Your task to perform on an android device: delete a single message in the gmail app Image 0: 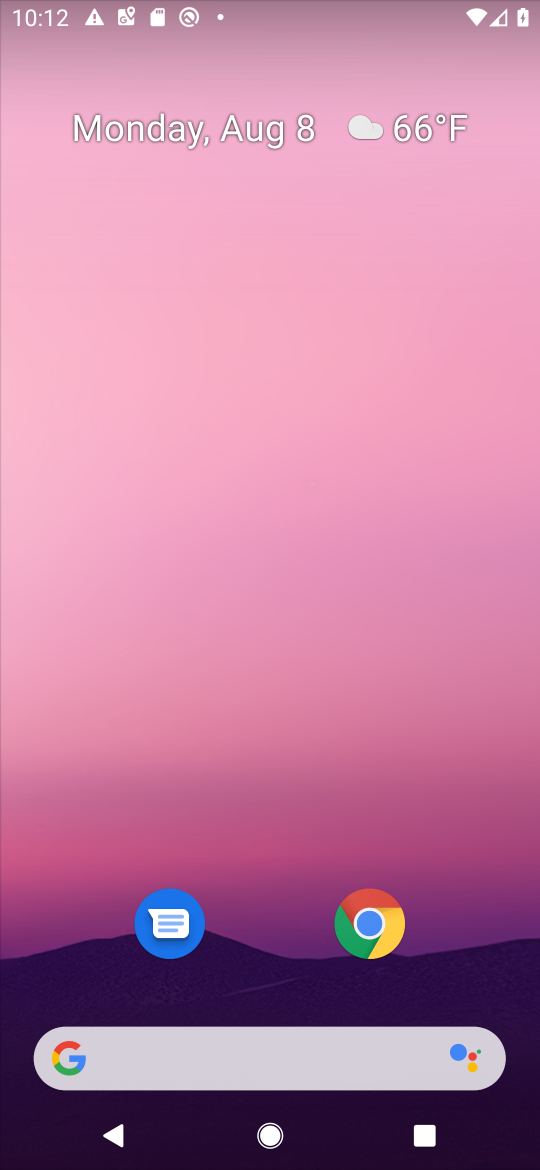
Step 0: drag from (59, 1118) to (168, 229)
Your task to perform on an android device: delete a single message in the gmail app Image 1: 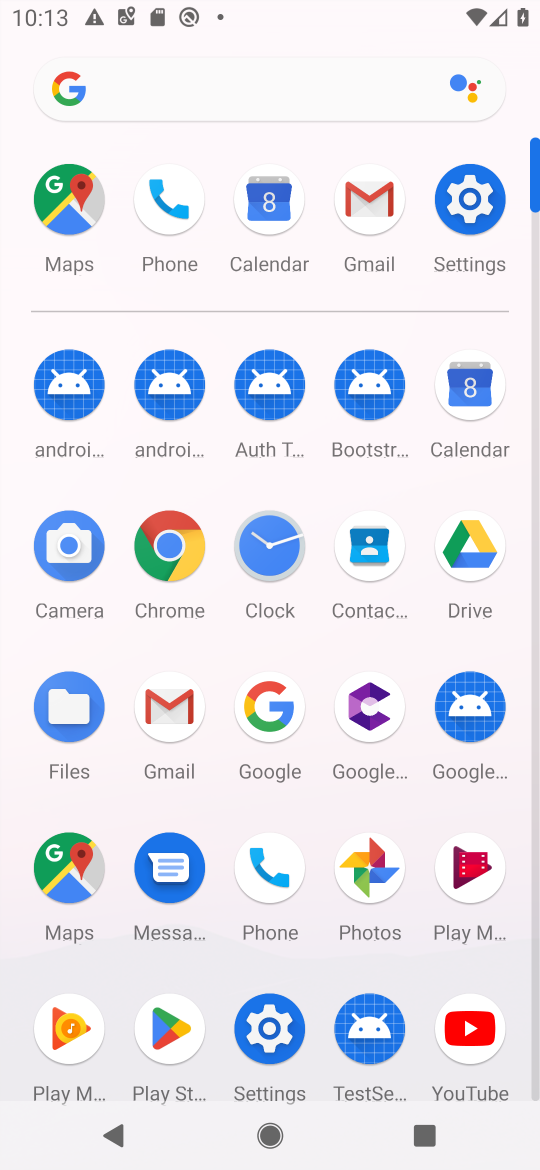
Step 1: click (180, 725)
Your task to perform on an android device: delete a single message in the gmail app Image 2: 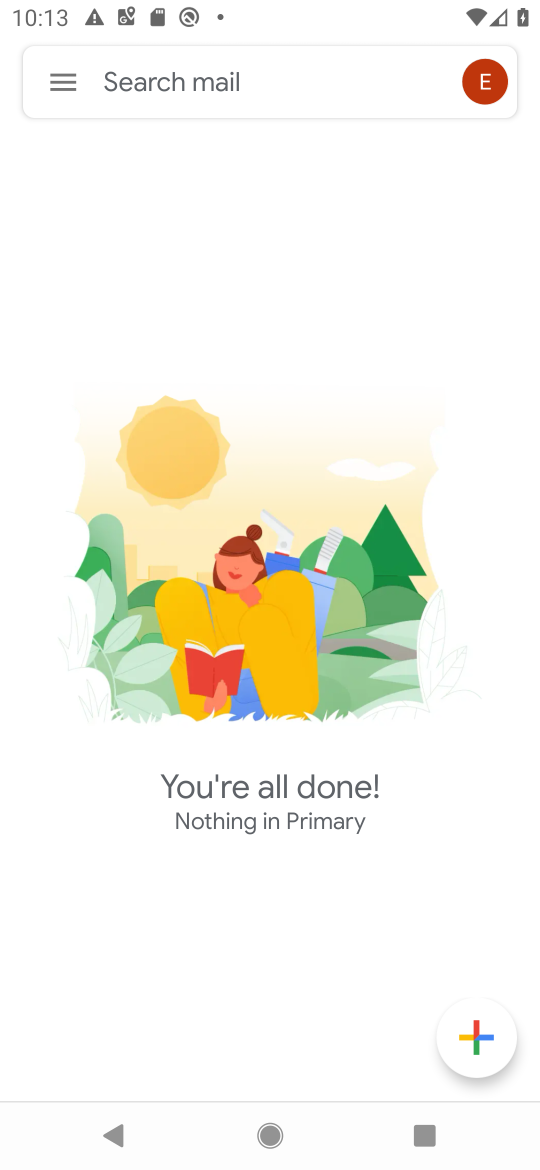
Step 2: click (69, 79)
Your task to perform on an android device: delete a single message in the gmail app Image 3: 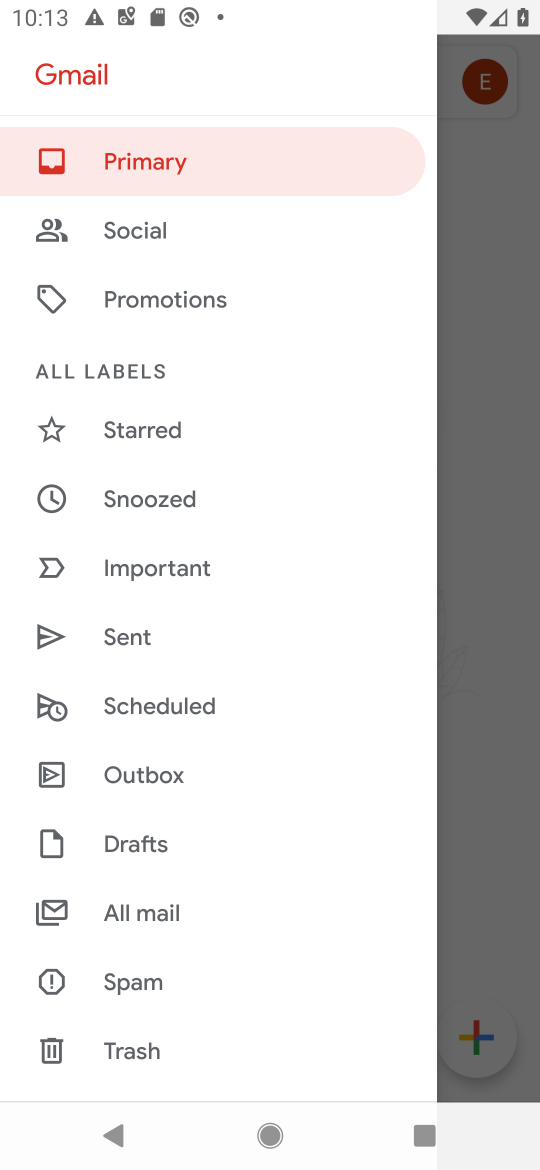
Step 3: click (148, 910)
Your task to perform on an android device: delete a single message in the gmail app Image 4: 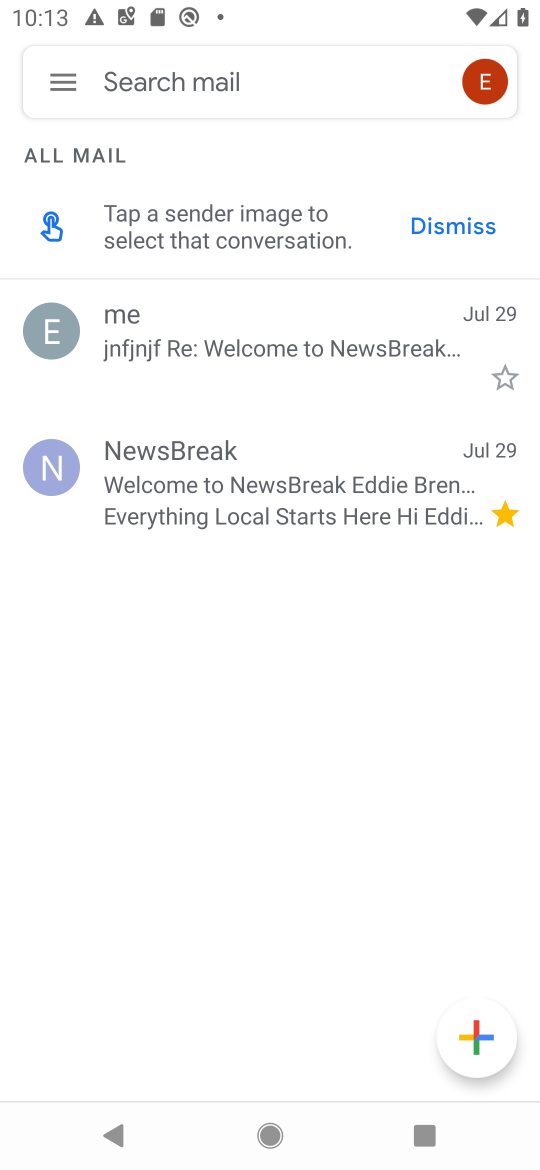
Step 4: click (210, 341)
Your task to perform on an android device: delete a single message in the gmail app Image 5: 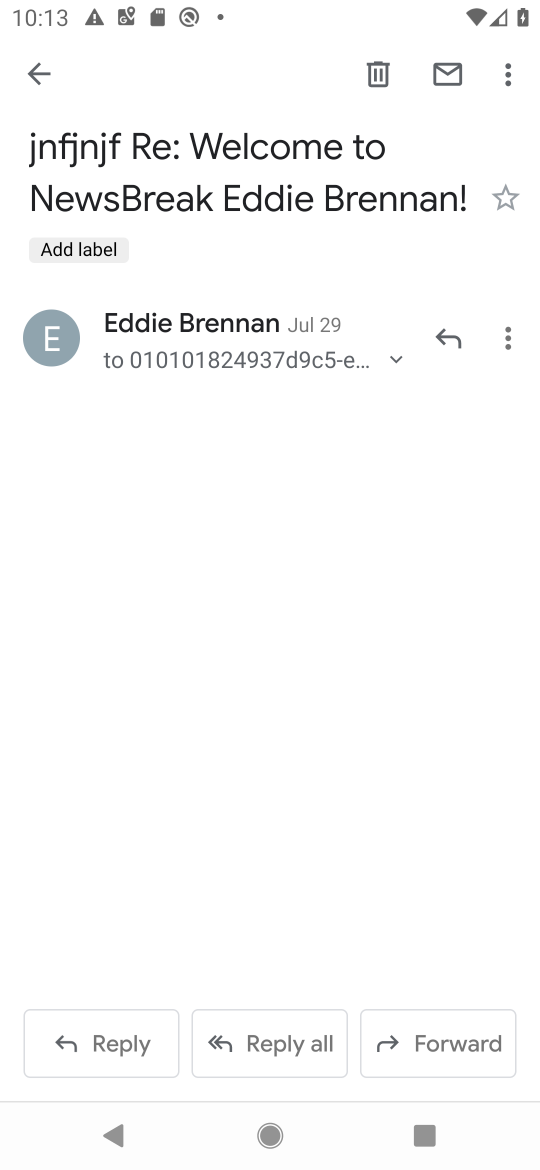
Step 5: click (384, 73)
Your task to perform on an android device: delete a single message in the gmail app Image 6: 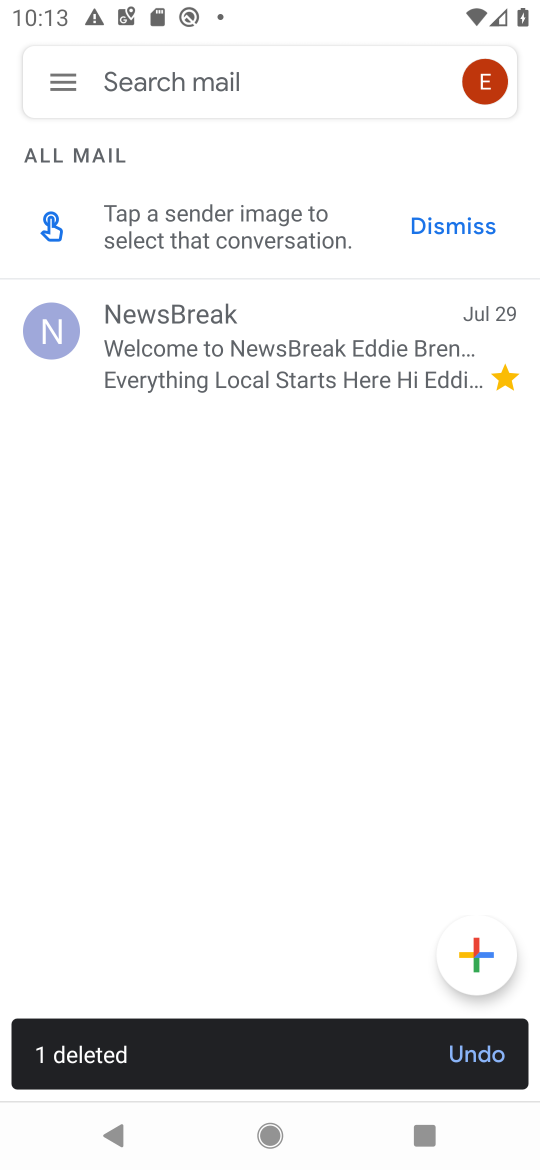
Step 6: task complete